Your task to perform on an android device: Do I have any events this weekend? Image 0: 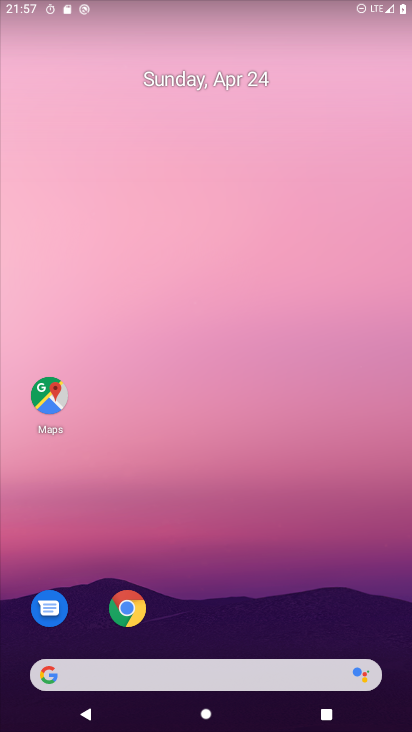
Step 0: drag from (243, 590) to (291, 36)
Your task to perform on an android device: Do I have any events this weekend? Image 1: 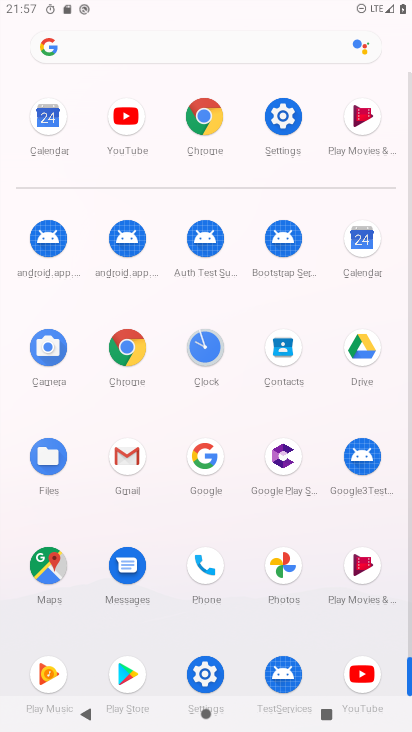
Step 1: click (55, 116)
Your task to perform on an android device: Do I have any events this weekend? Image 2: 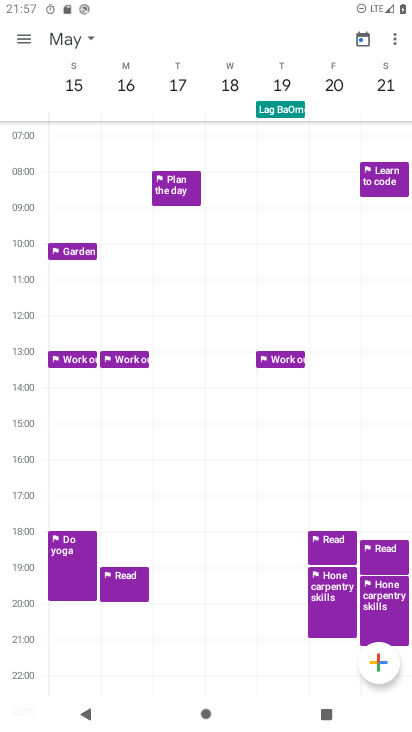
Step 2: click (379, 80)
Your task to perform on an android device: Do I have any events this weekend? Image 3: 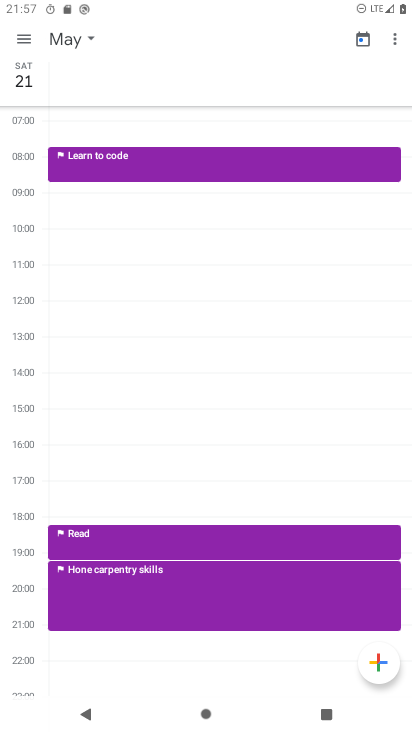
Step 3: task complete